Your task to perform on an android device: open app "Pinterest" (install if not already installed) and go to login screen Image 0: 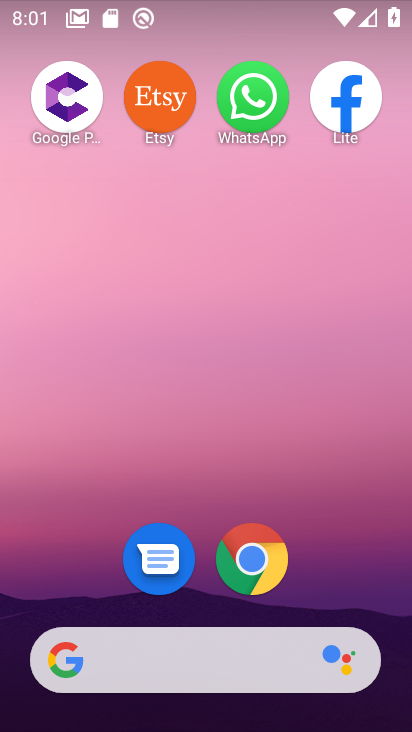
Step 0: drag from (193, 483) to (199, 141)
Your task to perform on an android device: open app "Pinterest" (install if not already installed) and go to login screen Image 1: 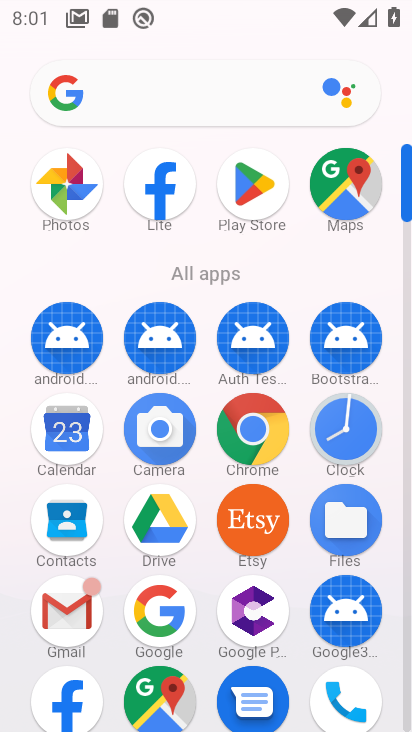
Step 1: click (248, 184)
Your task to perform on an android device: open app "Pinterest" (install if not already installed) and go to login screen Image 2: 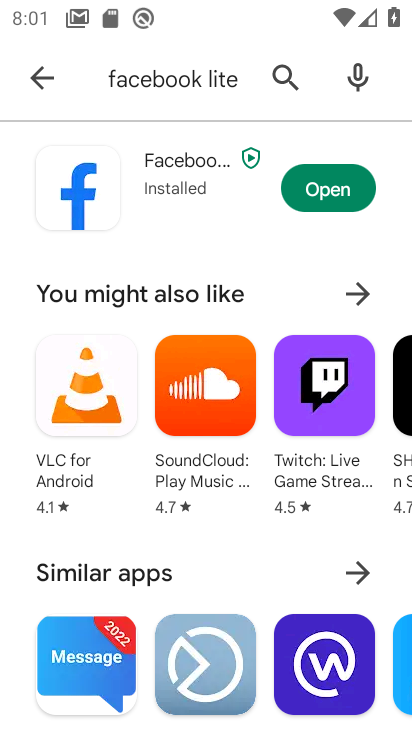
Step 2: click (287, 86)
Your task to perform on an android device: open app "Pinterest" (install if not already installed) and go to login screen Image 3: 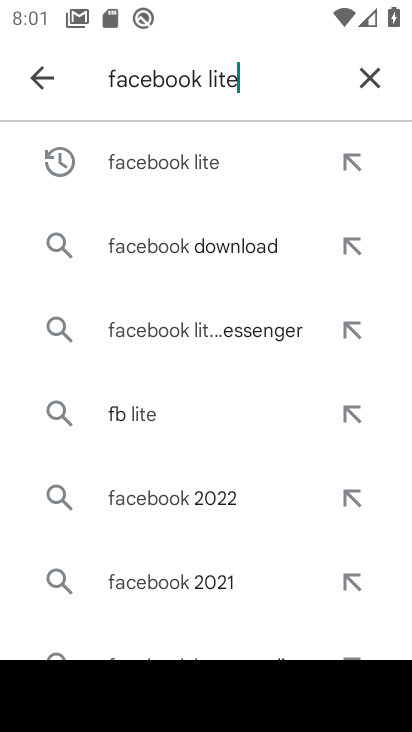
Step 3: click (357, 79)
Your task to perform on an android device: open app "Pinterest" (install if not already installed) and go to login screen Image 4: 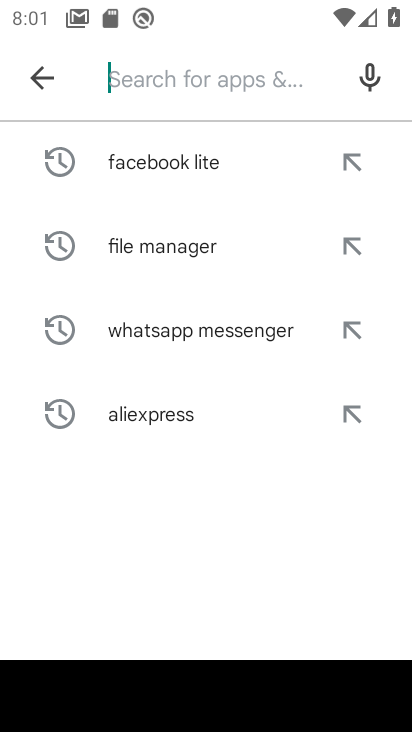
Step 4: type "Pinteres"
Your task to perform on an android device: open app "Pinterest" (install if not already installed) and go to login screen Image 5: 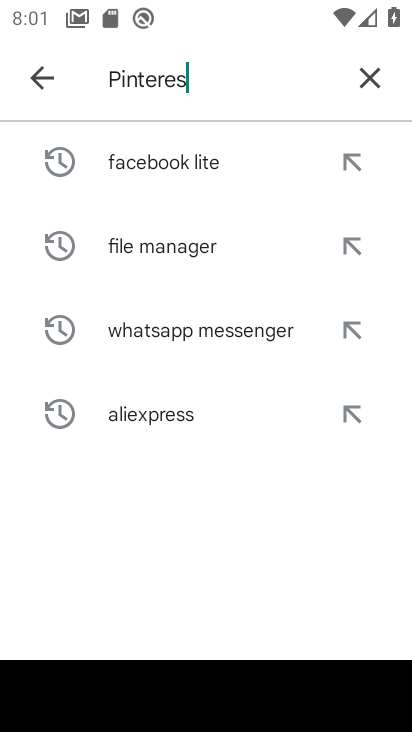
Step 5: type ""
Your task to perform on an android device: open app "Pinterest" (install if not already installed) and go to login screen Image 6: 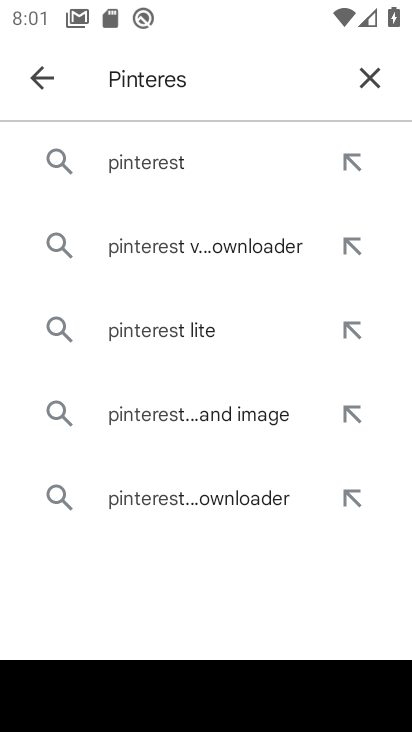
Step 6: click (216, 146)
Your task to perform on an android device: open app "Pinterest" (install if not already installed) and go to login screen Image 7: 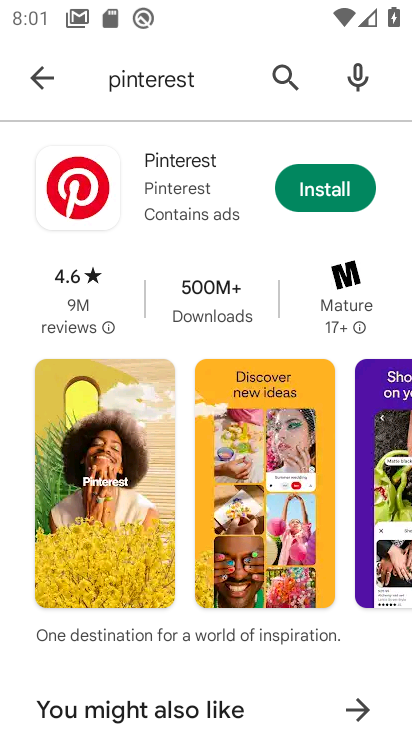
Step 7: click (298, 184)
Your task to perform on an android device: open app "Pinterest" (install if not already installed) and go to login screen Image 8: 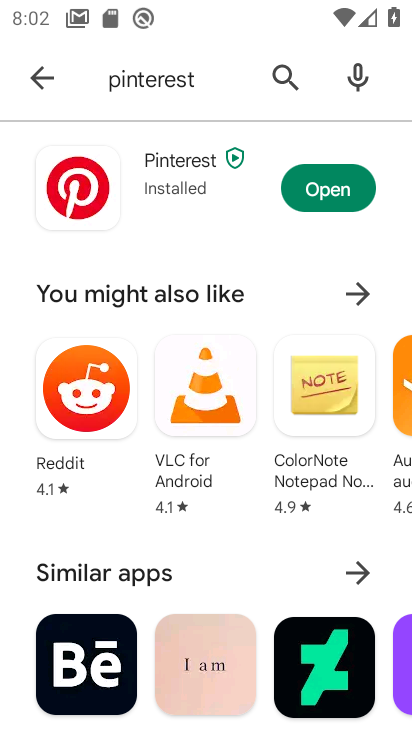
Step 8: click (322, 195)
Your task to perform on an android device: open app "Pinterest" (install if not already installed) and go to login screen Image 9: 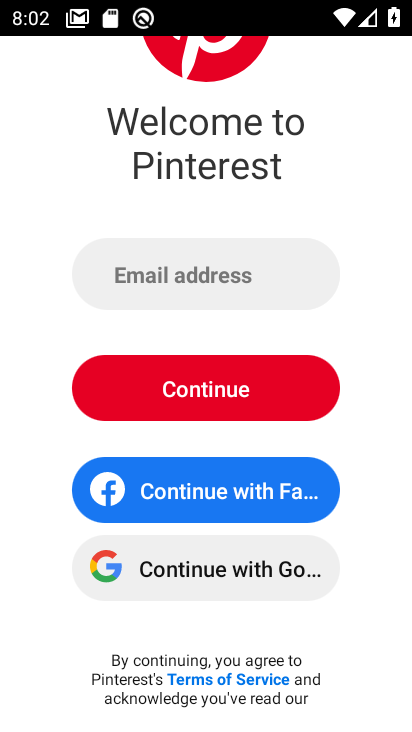
Step 9: task complete